Your task to perform on an android device: open a bookmark in the chrome app Image 0: 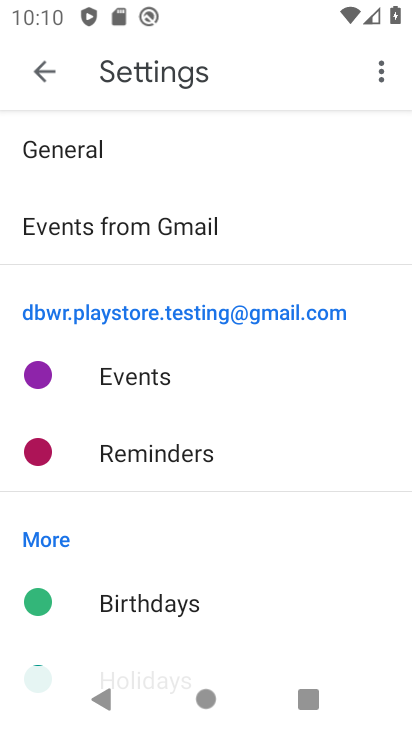
Step 0: press home button
Your task to perform on an android device: open a bookmark in the chrome app Image 1: 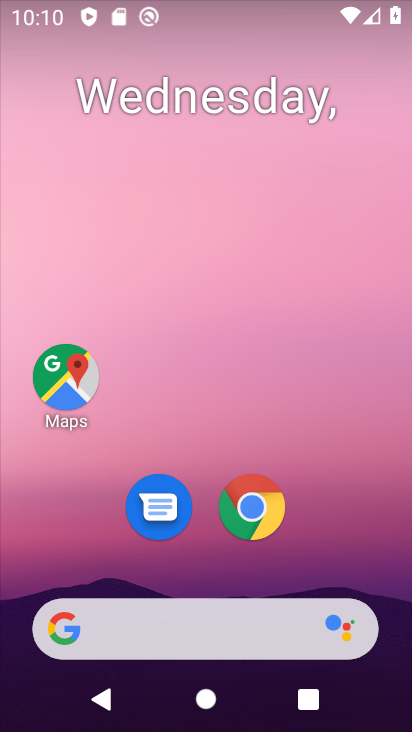
Step 1: drag from (279, 659) to (313, 236)
Your task to perform on an android device: open a bookmark in the chrome app Image 2: 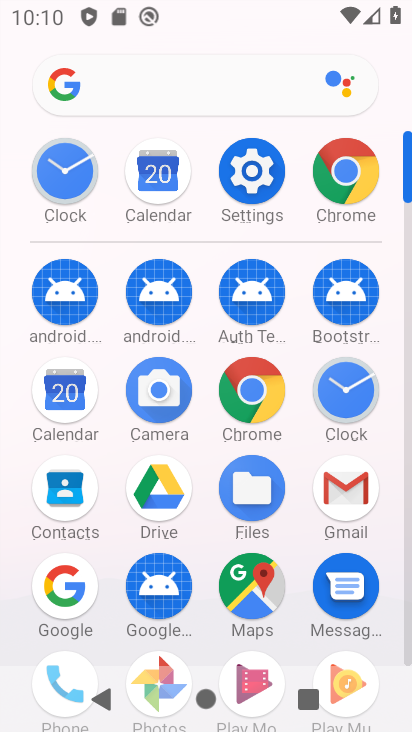
Step 2: click (344, 187)
Your task to perform on an android device: open a bookmark in the chrome app Image 3: 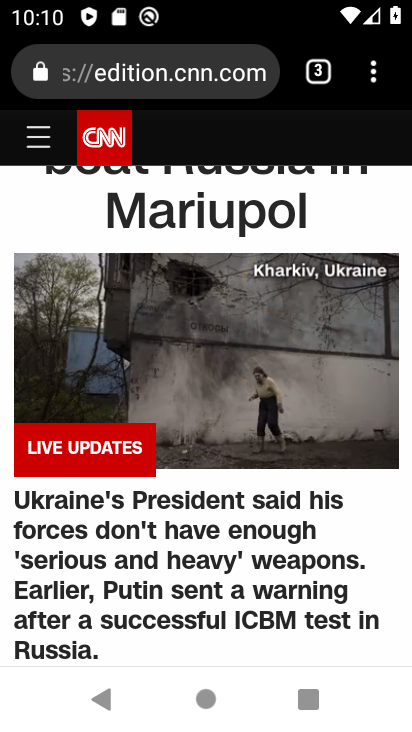
Step 3: click (372, 67)
Your task to perform on an android device: open a bookmark in the chrome app Image 4: 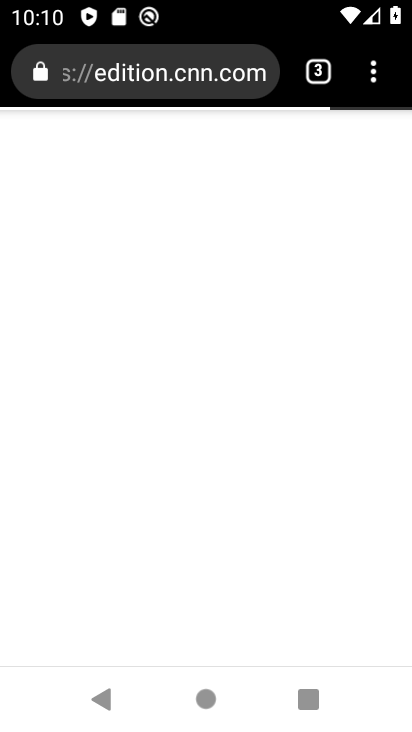
Step 4: click (368, 75)
Your task to perform on an android device: open a bookmark in the chrome app Image 5: 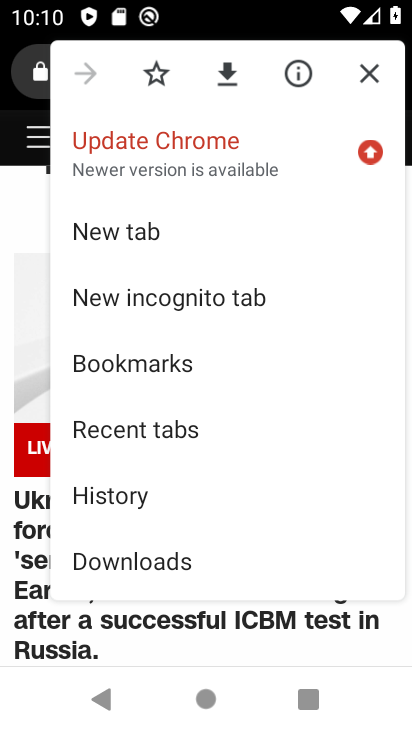
Step 5: click (123, 378)
Your task to perform on an android device: open a bookmark in the chrome app Image 6: 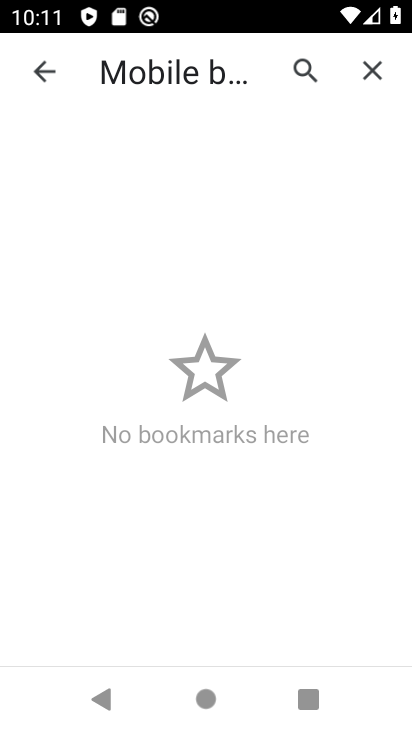
Step 6: task complete